Your task to perform on an android device: What's on my calendar tomorrow? Image 0: 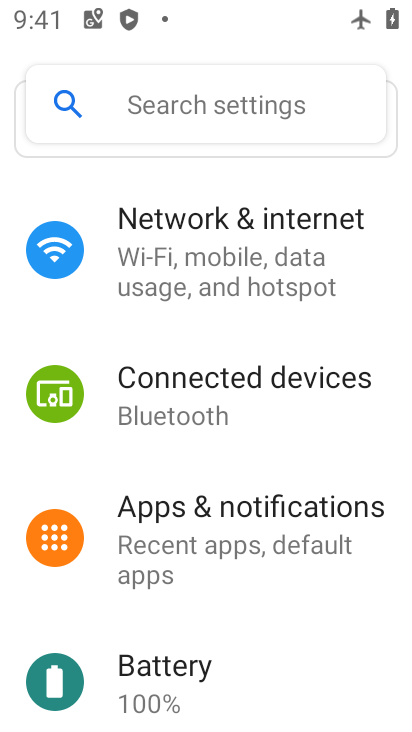
Step 0: press home button
Your task to perform on an android device: What's on my calendar tomorrow? Image 1: 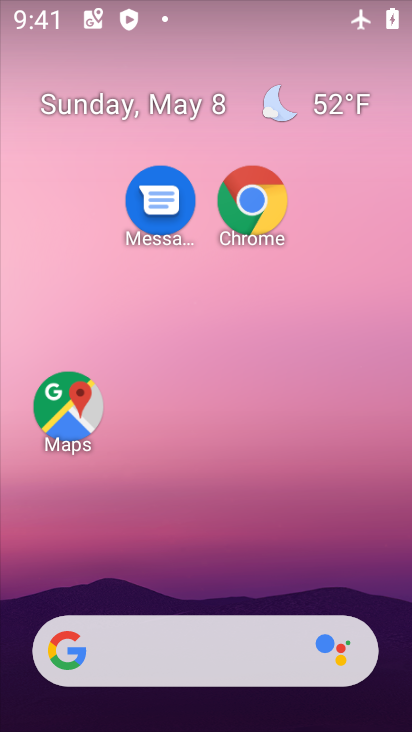
Step 1: drag from (225, 594) to (234, 52)
Your task to perform on an android device: What's on my calendar tomorrow? Image 2: 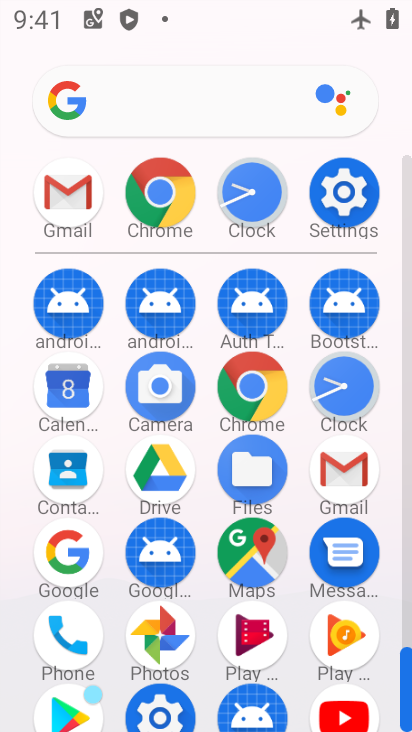
Step 2: click (68, 403)
Your task to perform on an android device: What's on my calendar tomorrow? Image 3: 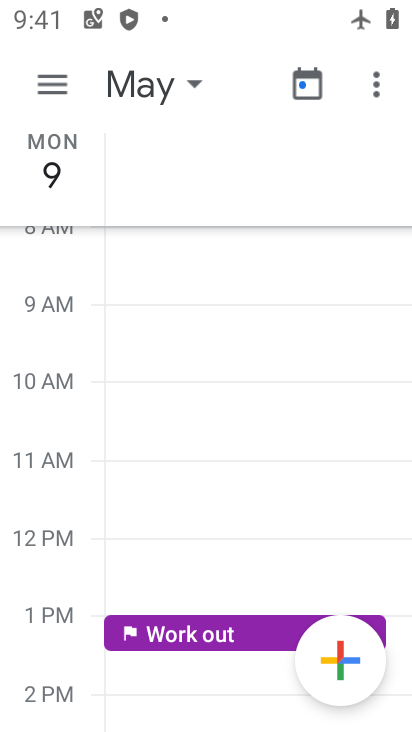
Step 3: click (40, 78)
Your task to perform on an android device: What's on my calendar tomorrow? Image 4: 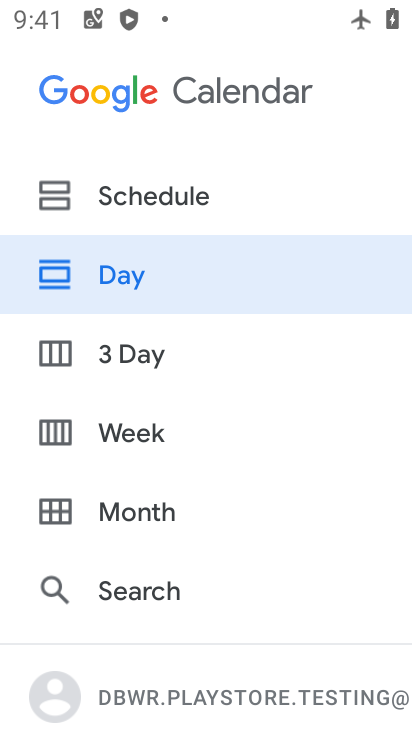
Step 4: click (162, 355)
Your task to perform on an android device: What's on my calendar tomorrow? Image 5: 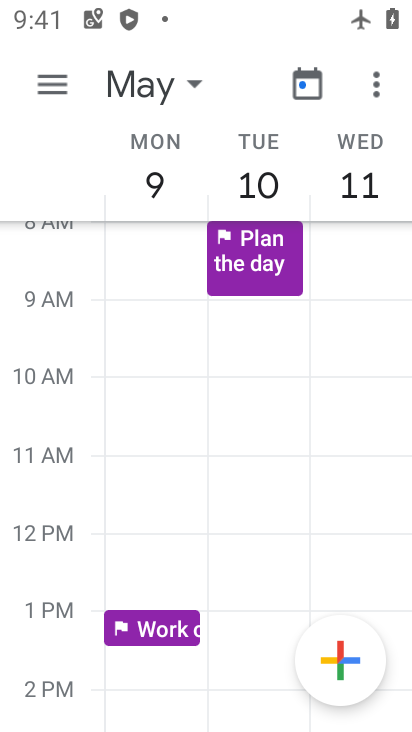
Step 5: click (242, 169)
Your task to perform on an android device: What's on my calendar tomorrow? Image 6: 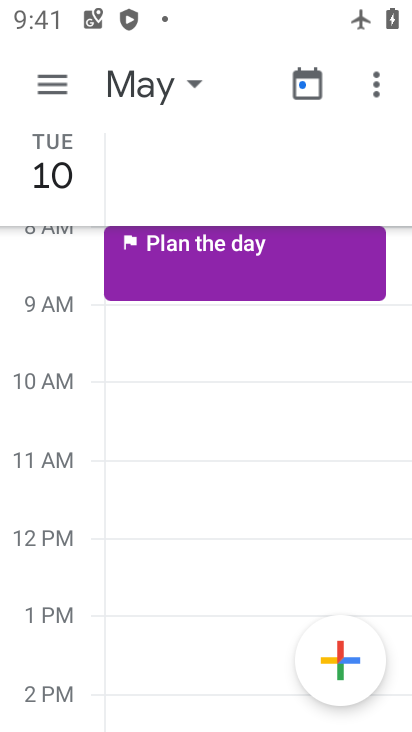
Step 6: click (174, 77)
Your task to perform on an android device: What's on my calendar tomorrow? Image 7: 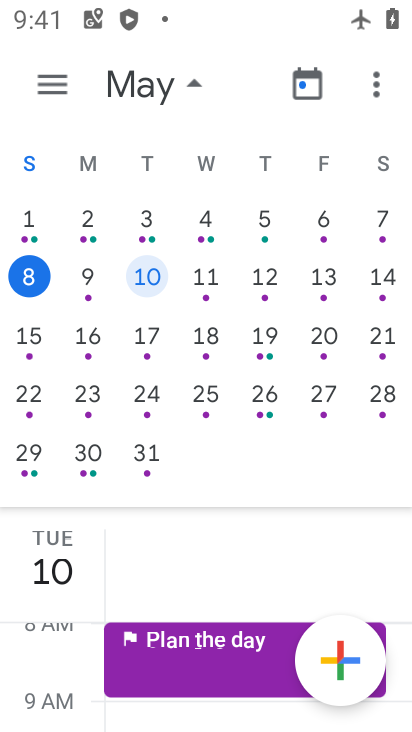
Step 7: click (66, 272)
Your task to perform on an android device: What's on my calendar tomorrow? Image 8: 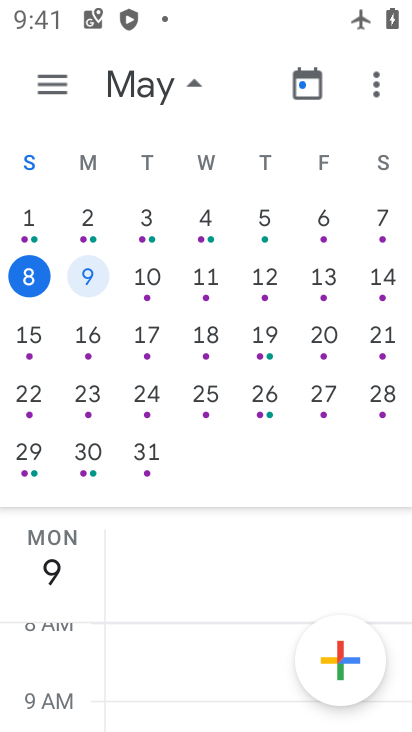
Step 8: task complete